Your task to perform on an android device: turn on sleep mode Image 0: 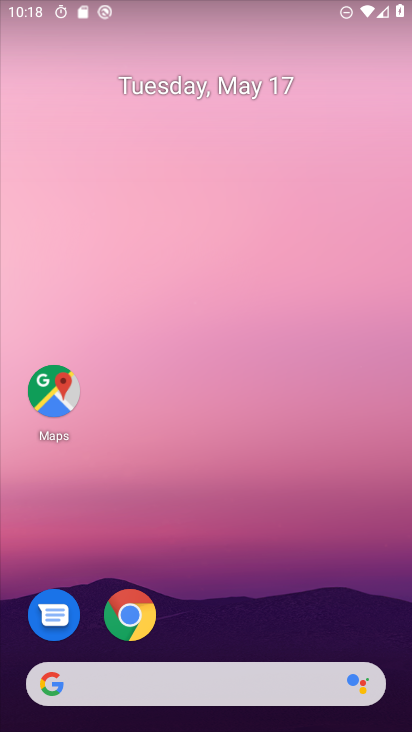
Step 0: drag from (274, 569) to (137, 69)
Your task to perform on an android device: turn on sleep mode Image 1: 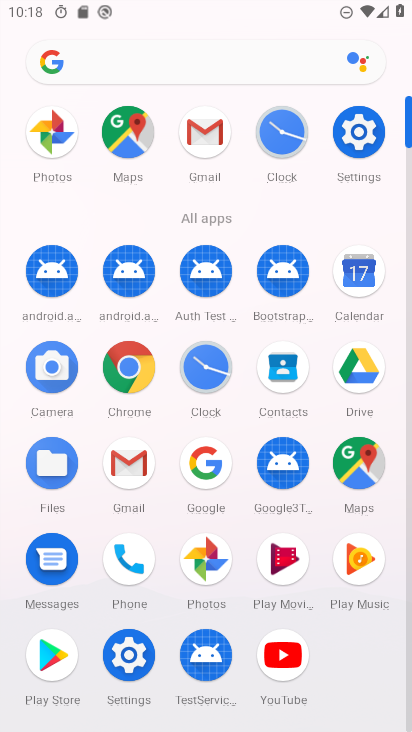
Step 1: click (335, 129)
Your task to perform on an android device: turn on sleep mode Image 2: 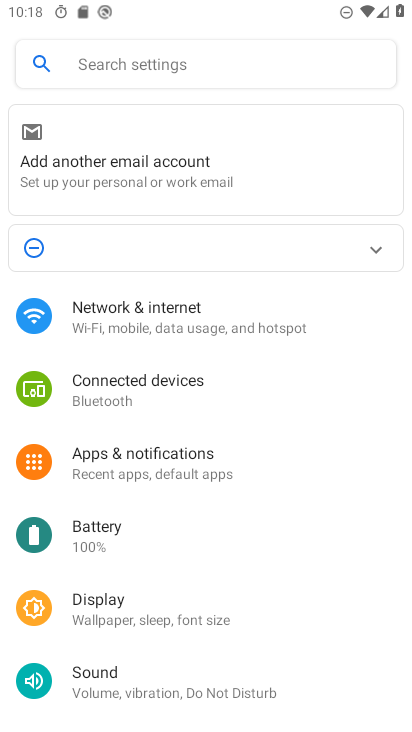
Step 2: click (248, 628)
Your task to perform on an android device: turn on sleep mode Image 3: 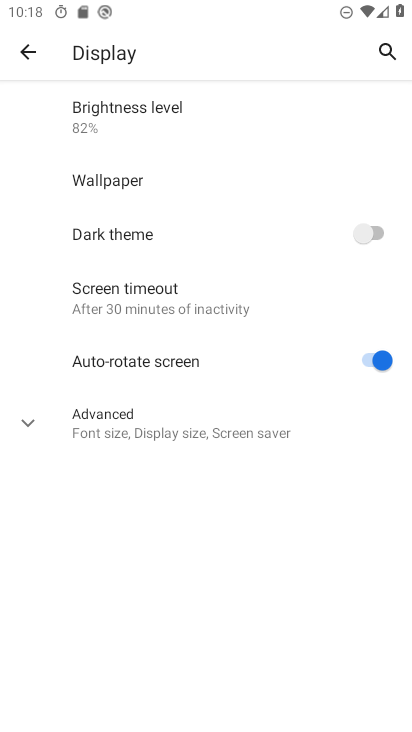
Step 3: task complete